Your task to perform on an android device: all mails in gmail Image 0: 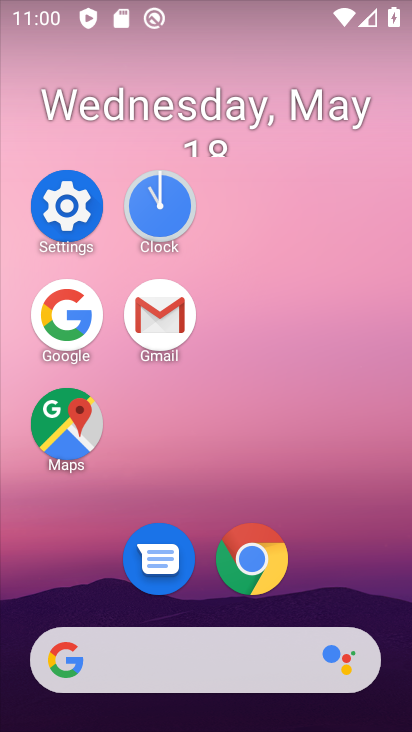
Step 0: click (169, 312)
Your task to perform on an android device: all mails in gmail Image 1: 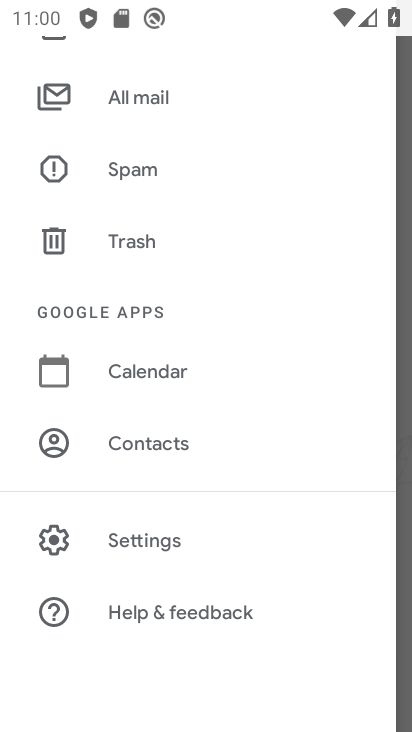
Step 1: click (156, 92)
Your task to perform on an android device: all mails in gmail Image 2: 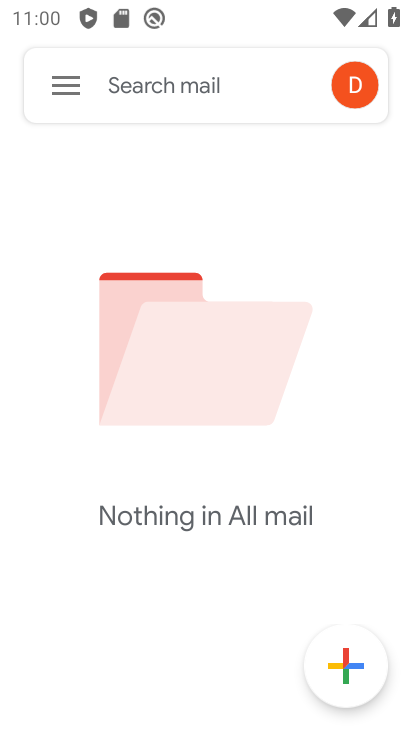
Step 2: task complete